Your task to perform on an android device: visit the assistant section in the google photos Image 0: 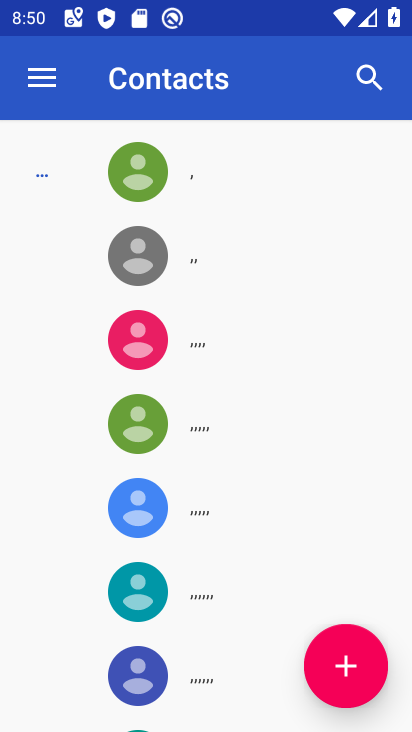
Step 0: press home button
Your task to perform on an android device: visit the assistant section in the google photos Image 1: 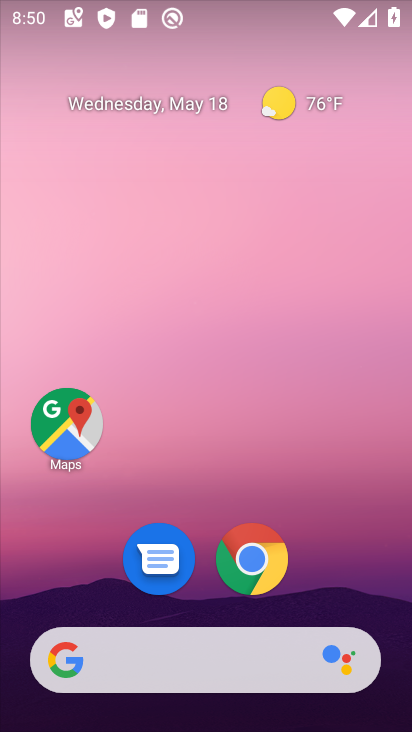
Step 1: drag from (211, 601) to (240, 79)
Your task to perform on an android device: visit the assistant section in the google photos Image 2: 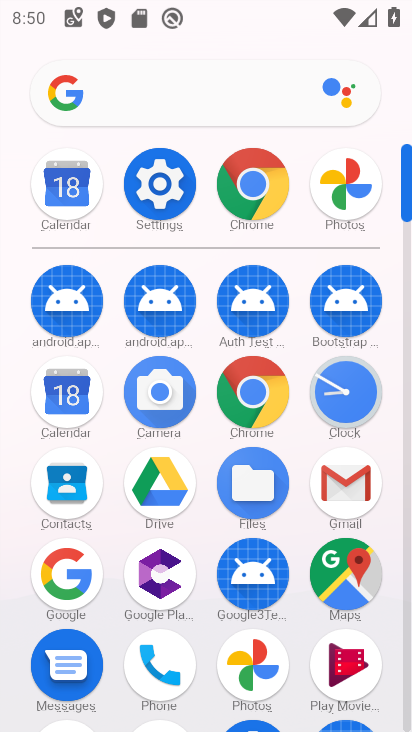
Step 2: click (257, 666)
Your task to perform on an android device: visit the assistant section in the google photos Image 3: 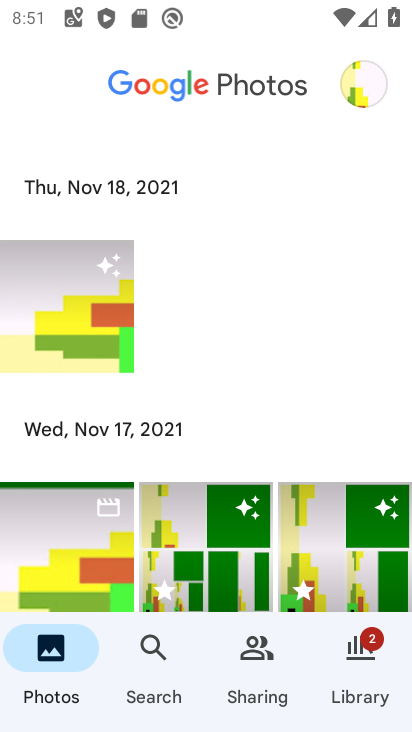
Step 3: task complete